Your task to perform on an android device: install app "Gmail" Image 0: 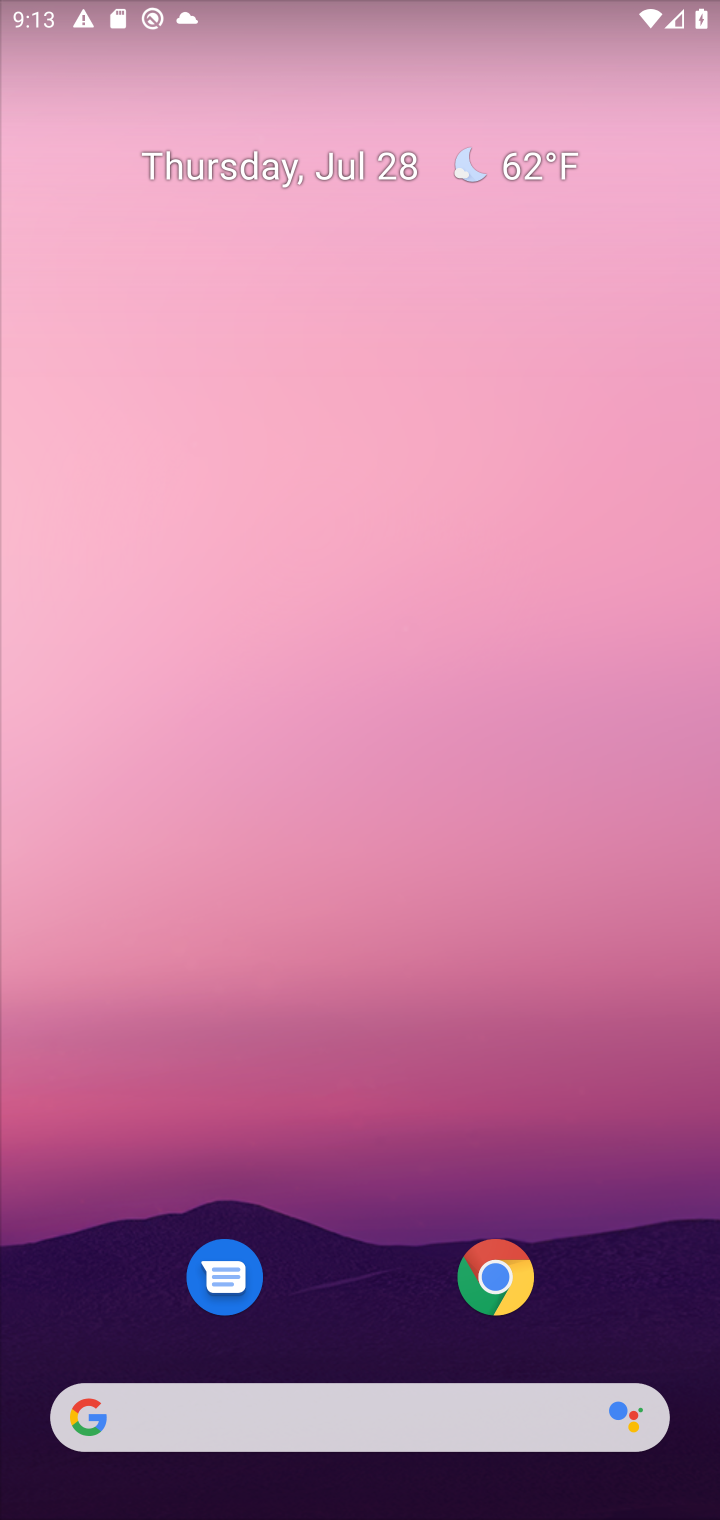
Step 0: drag from (364, 1500) to (359, 160)
Your task to perform on an android device: install app "Gmail" Image 1: 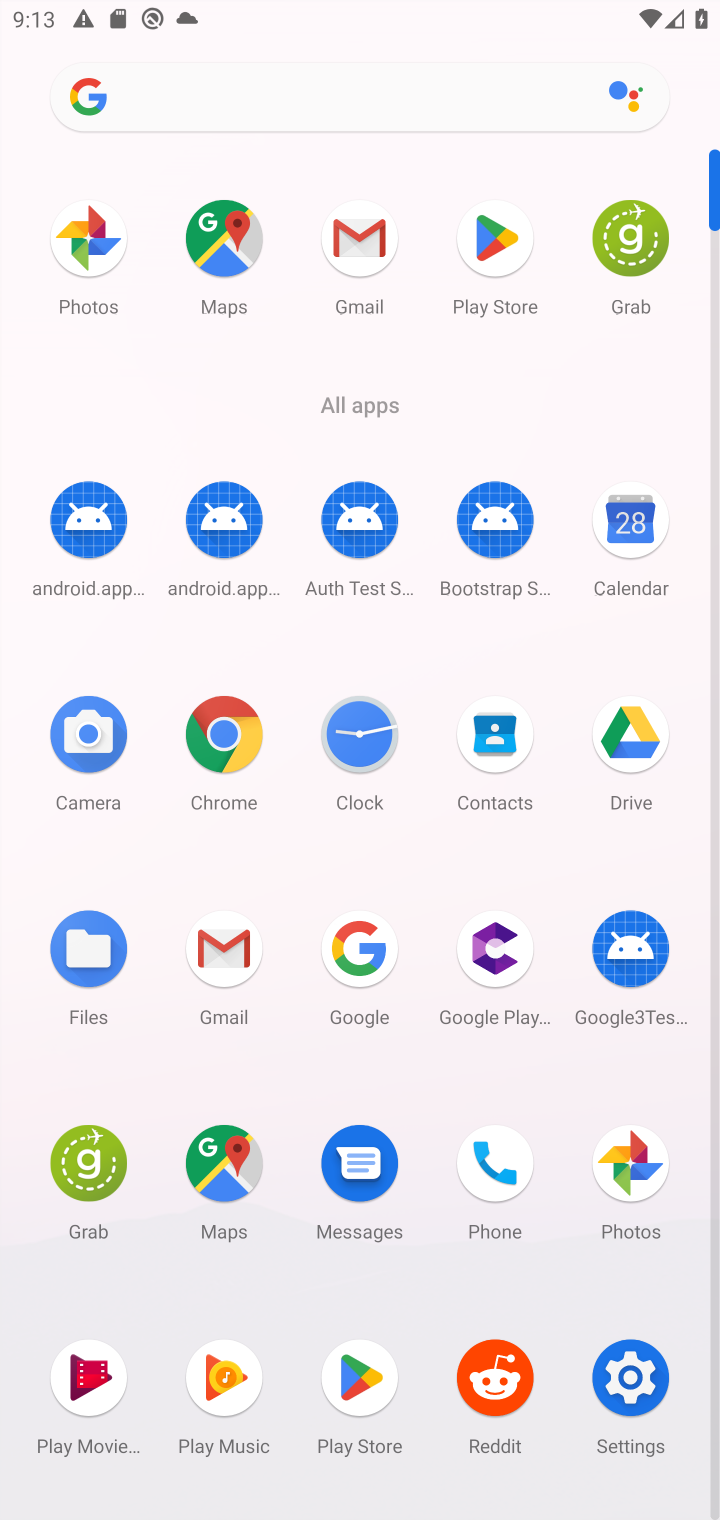
Step 1: click (356, 1385)
Your task to perform on an android device: install app "Gmail" Image 2: 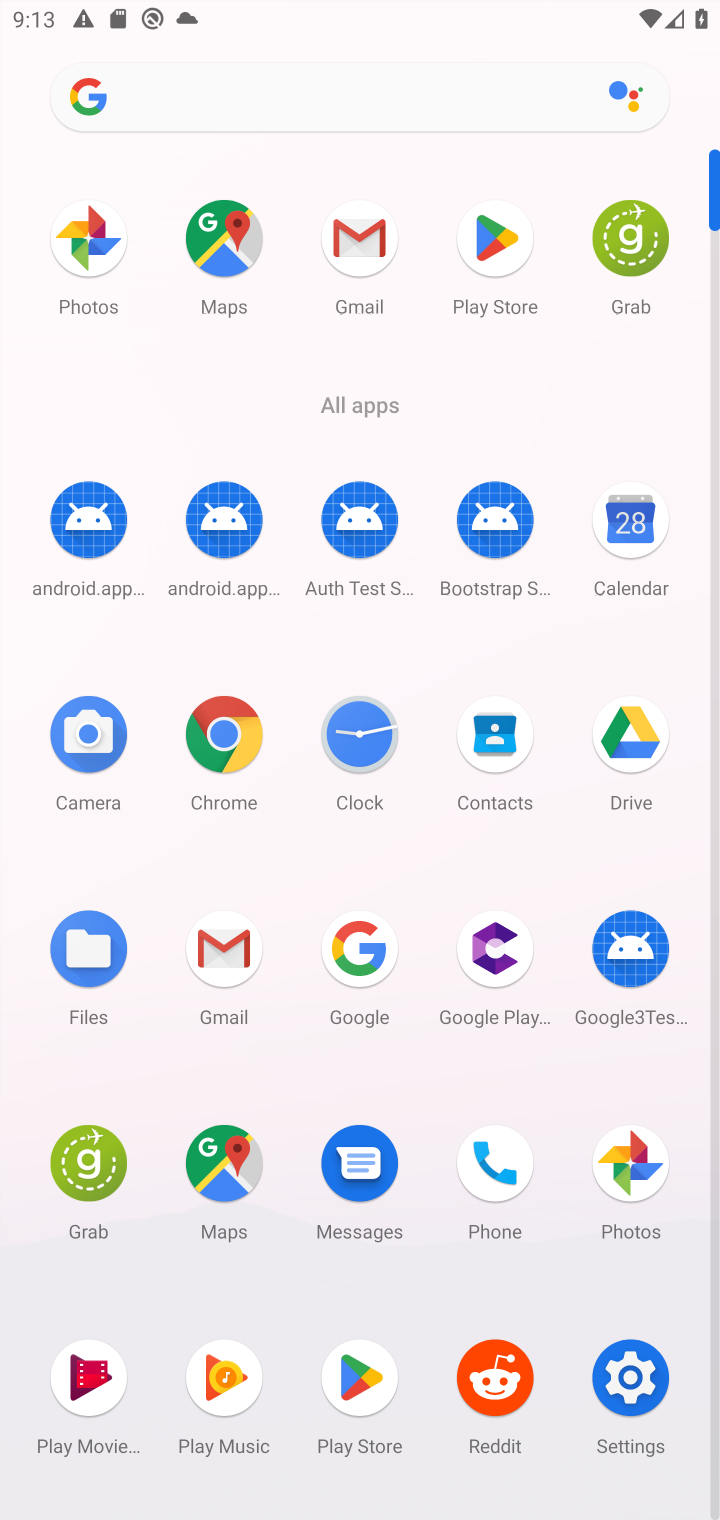
Step 2: click (356, 1385)
Your task to perform on an android device: install app "Gmail" Image 3: 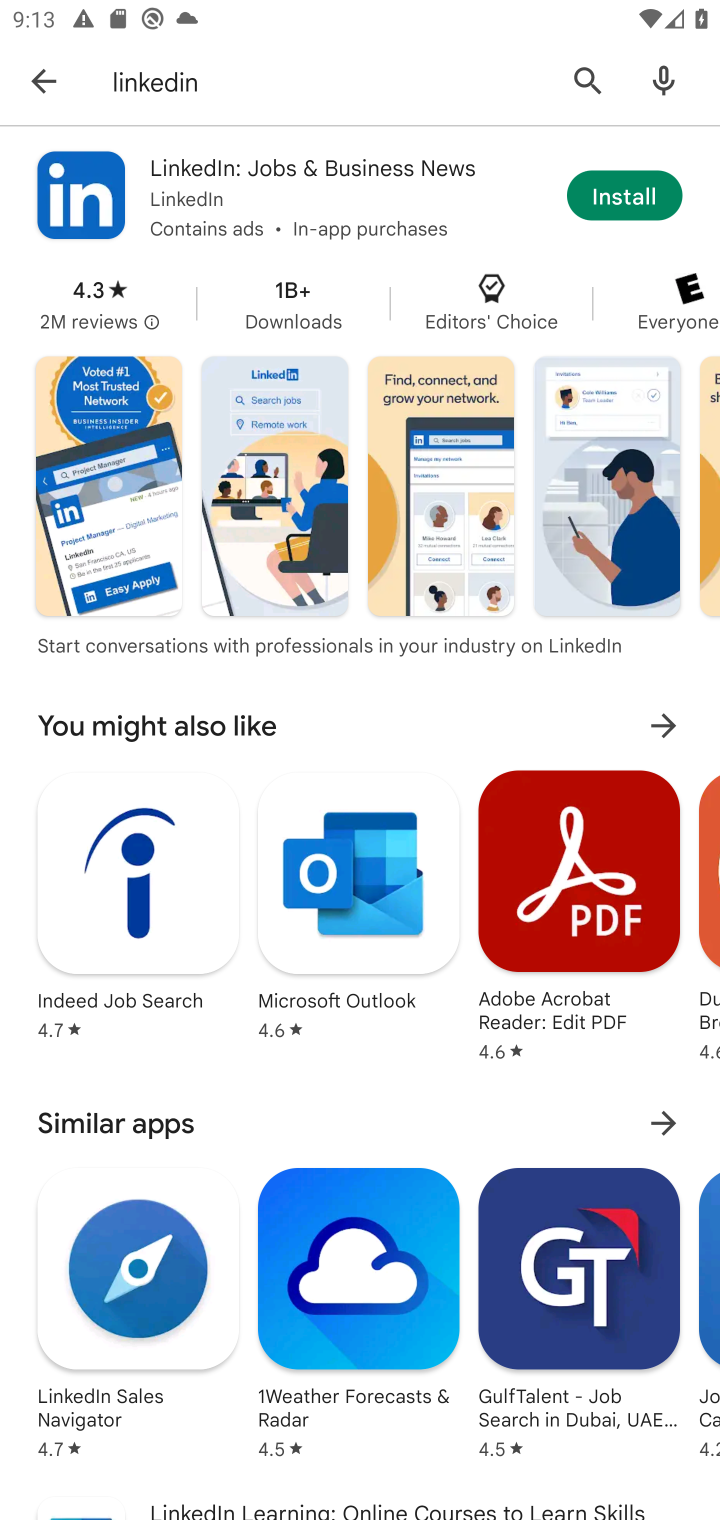
Step 3: click (586, 68)
Your task to perform on an android device: install app "Gmail" Image 4: 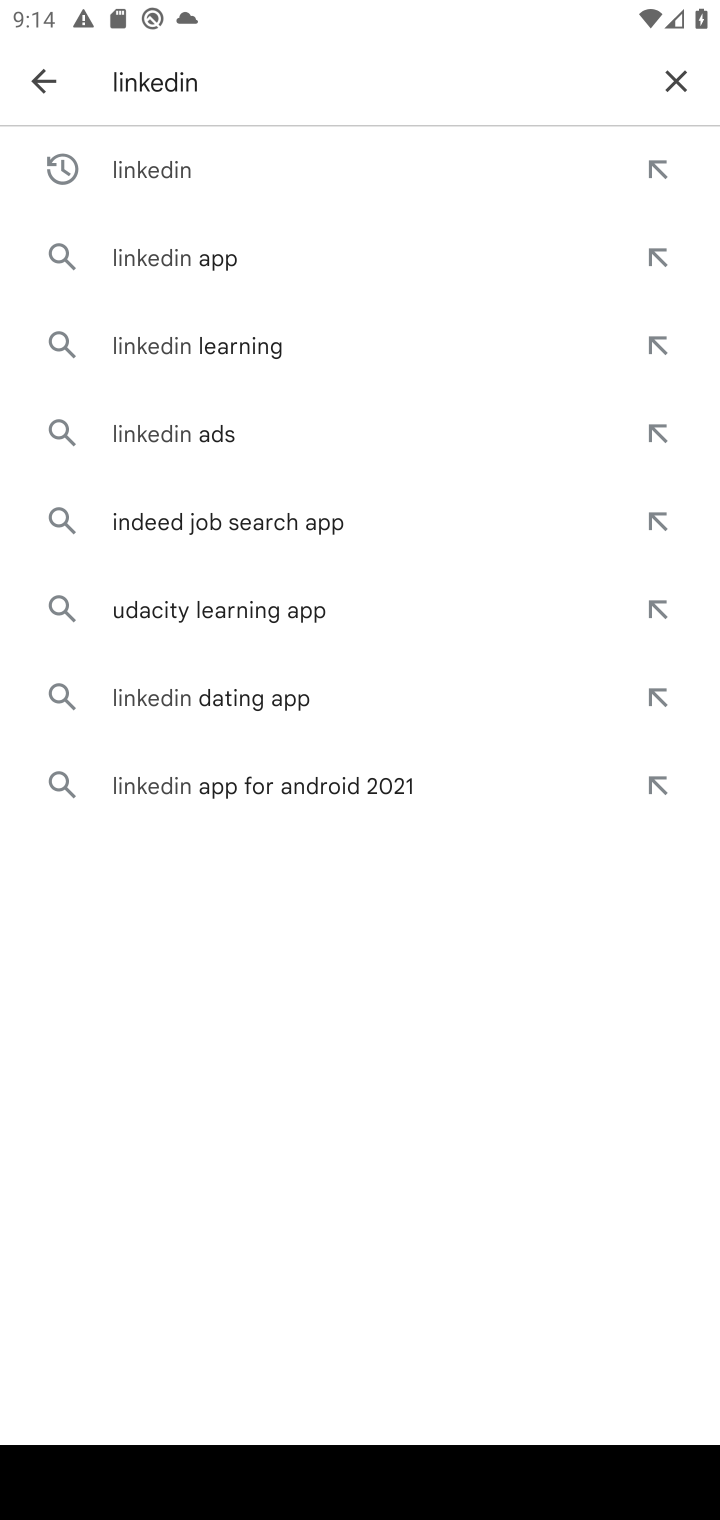
Step 4: click (676, 84)
Your task to perform on an android device: install app "Gmail" Image 5: 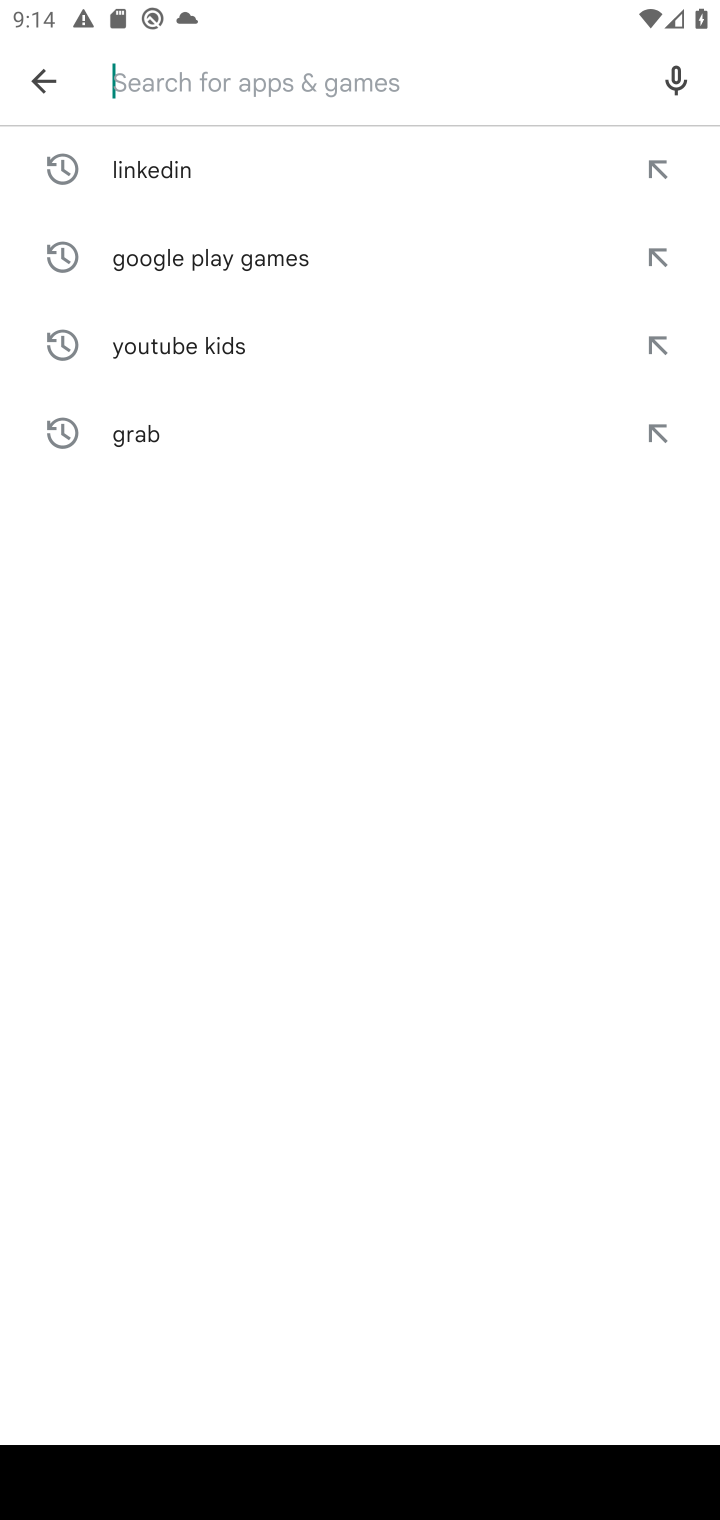
Step 5: type "Gmail"
Your task to perform on an android device: install app "Gmail" Image 6: 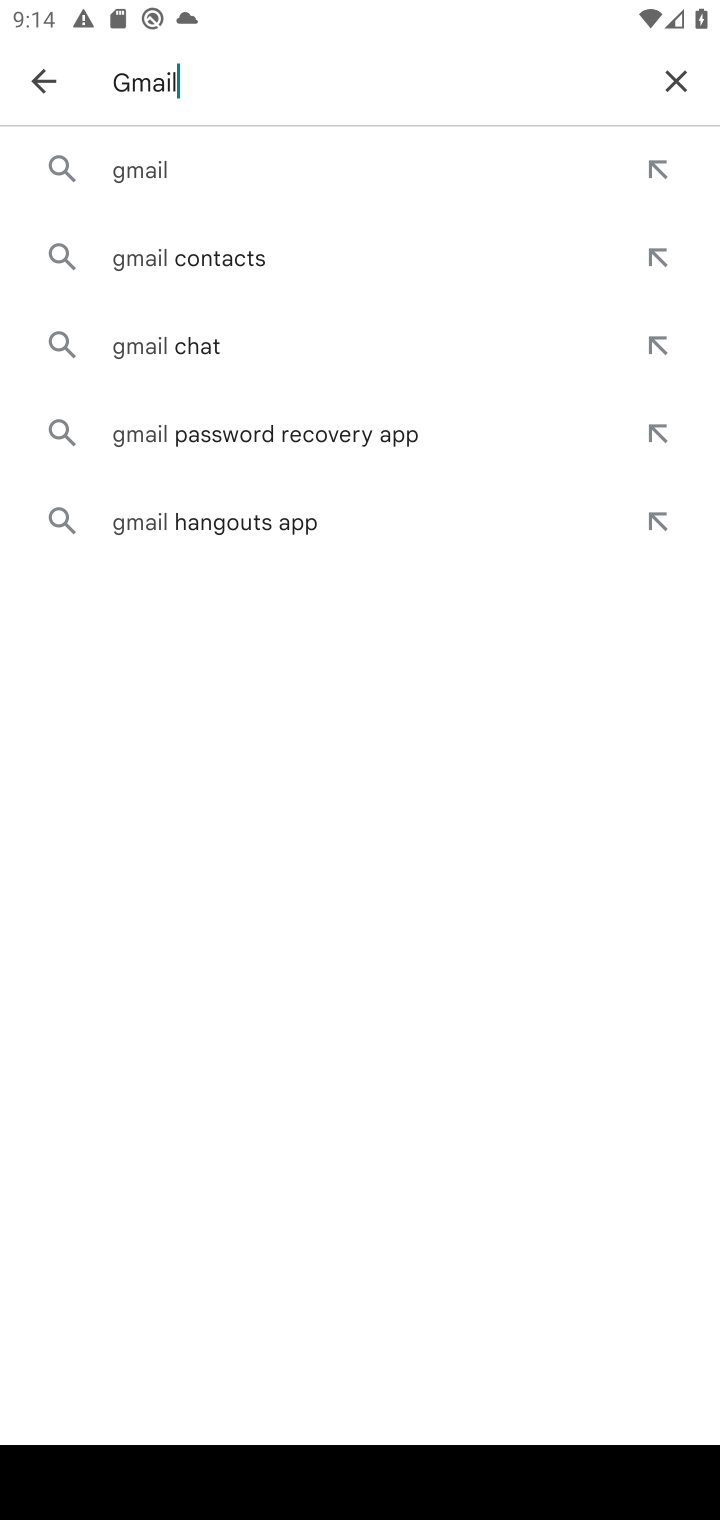
Step 6: click (150, 165)
Your task to perform on an android device: install app "Gmail" Image 7: 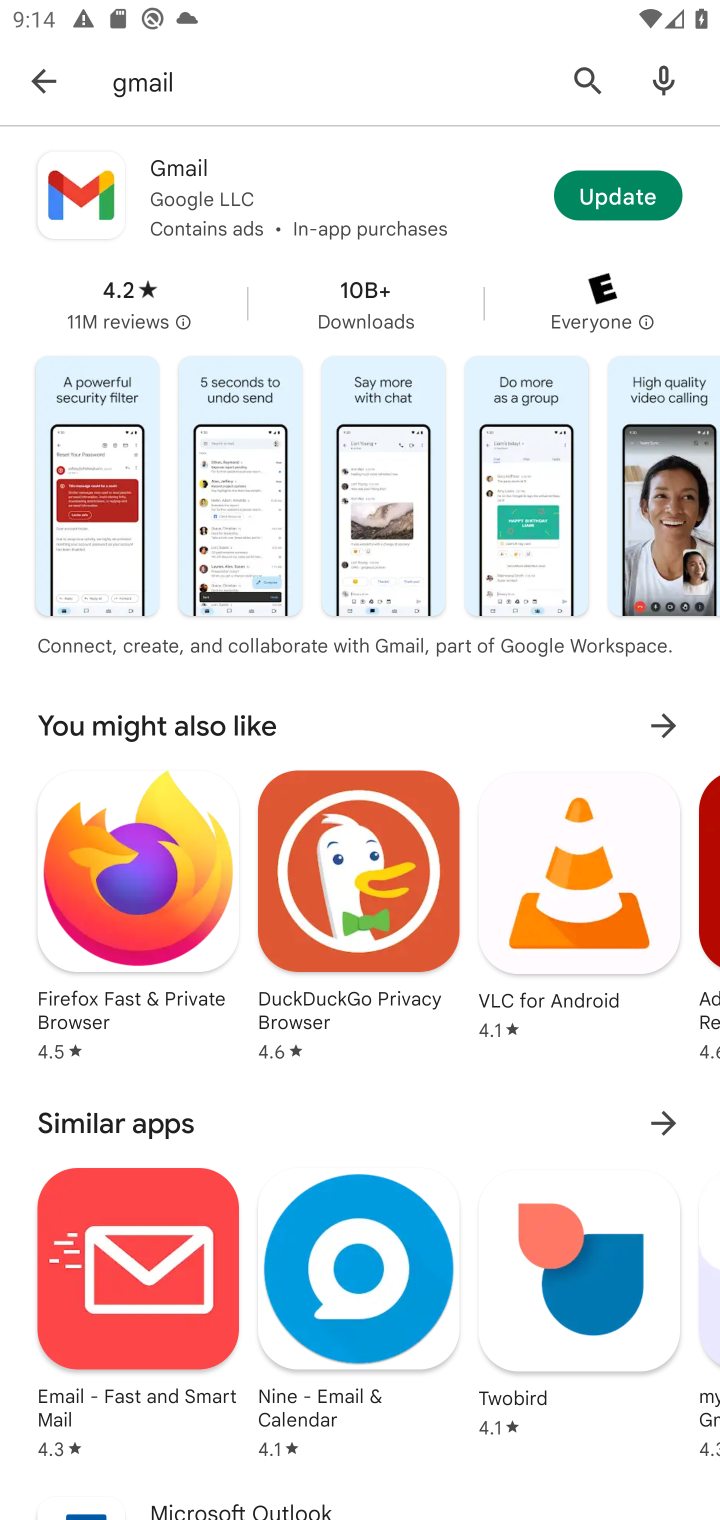
Step 7: click (197, 181)
Your task to perform on an android device: install app "Gmail" Image 8: 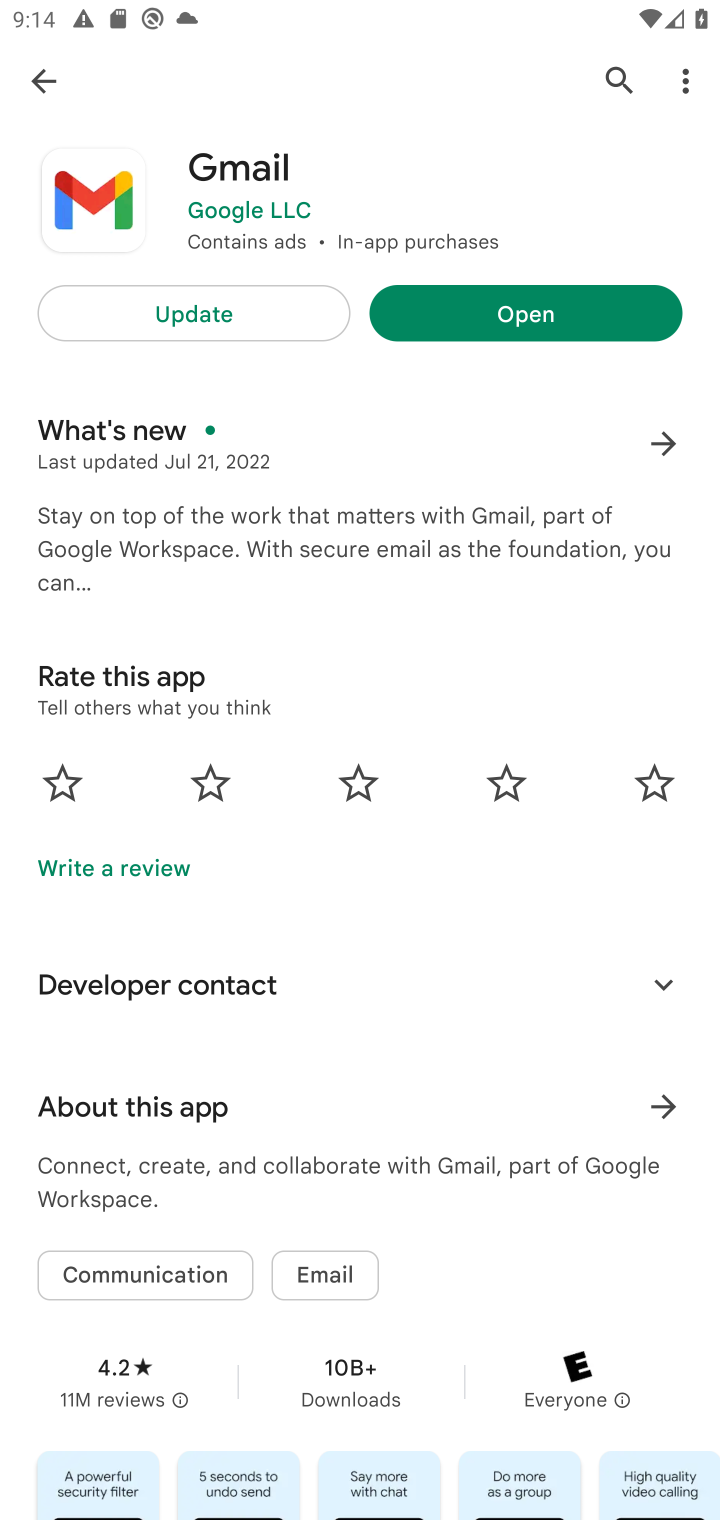
Step 8: task complete